Your task to perform on an android device: uninstall "Viber Messenger" Image 0: 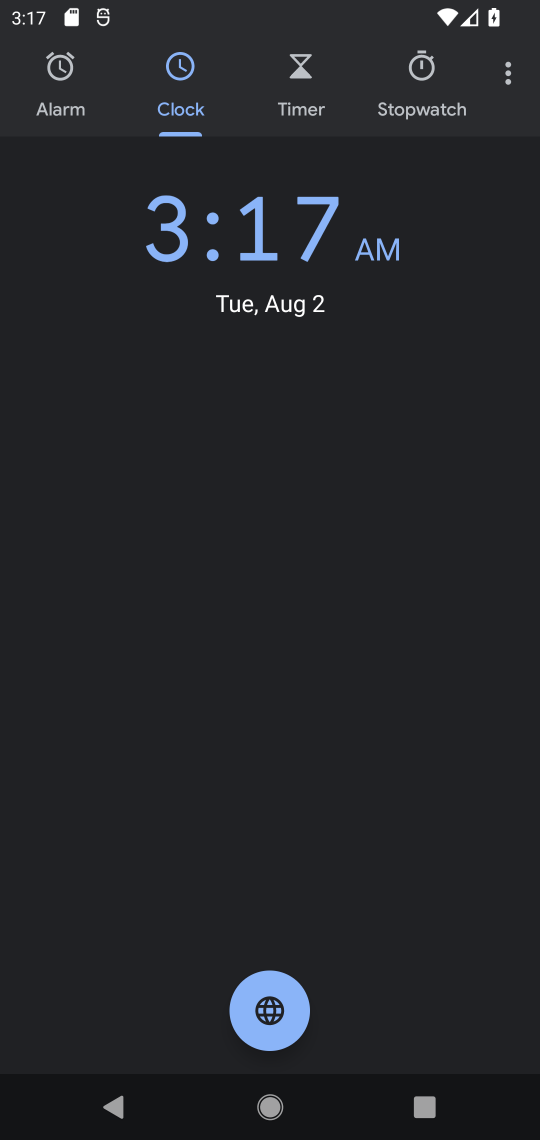
Step 0: press home button
Your task to perform on an android device: uninstall "Viber Messenger" Image 1: 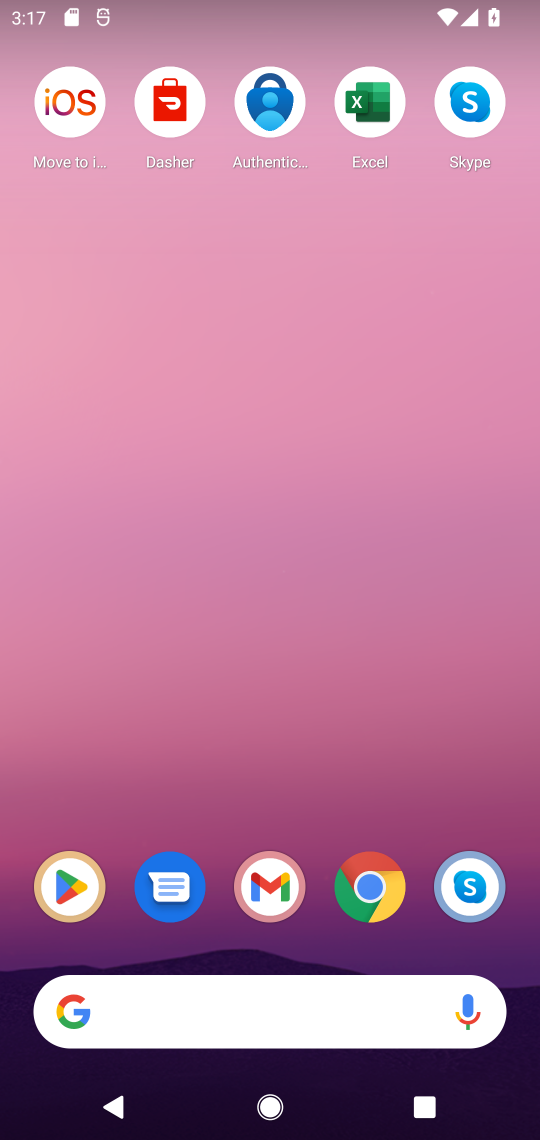
Step 1: click (42, 882)
Your task to perform on an android device: uninstall "Viber Messenger" Image 2: 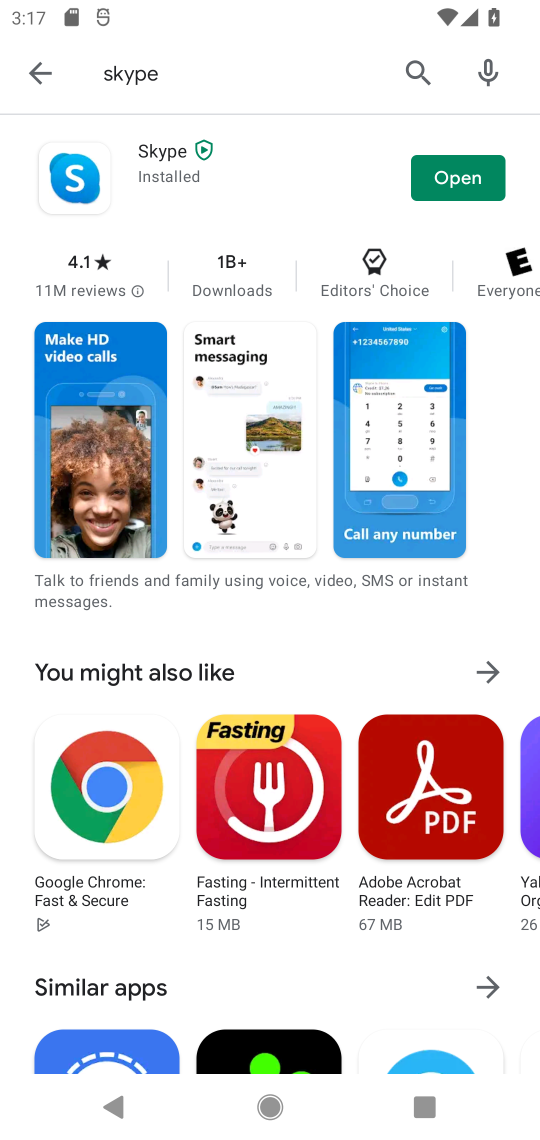
Step 2: click (22, 71)
Your task to perform on an android device: uninstall "Viber Messenger" Image 3: 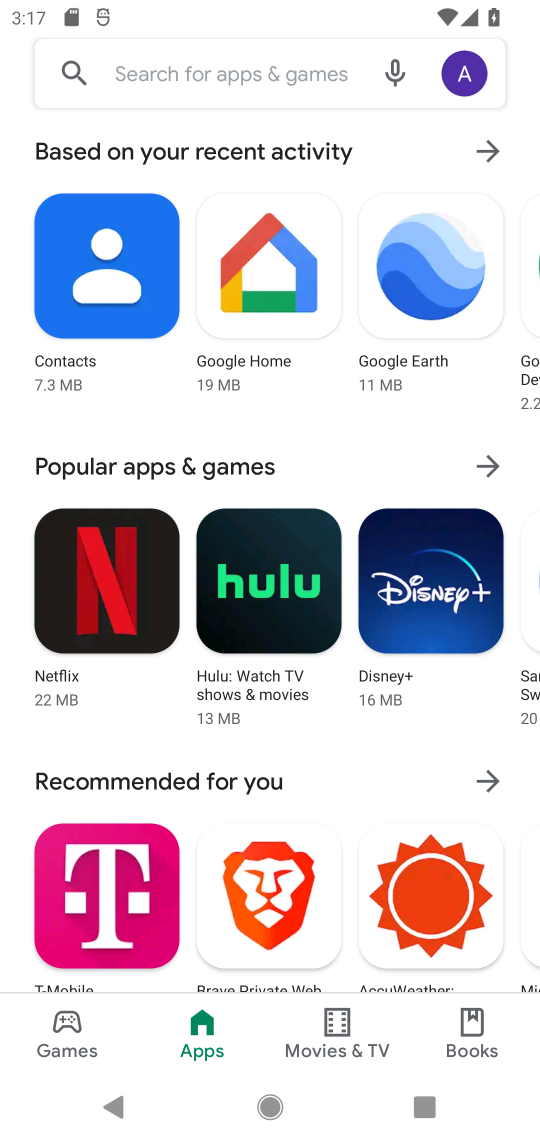
Step 3: click (208, 74)
Your task to perform on an android device: uninstall "Viber Messenger" Image 4: 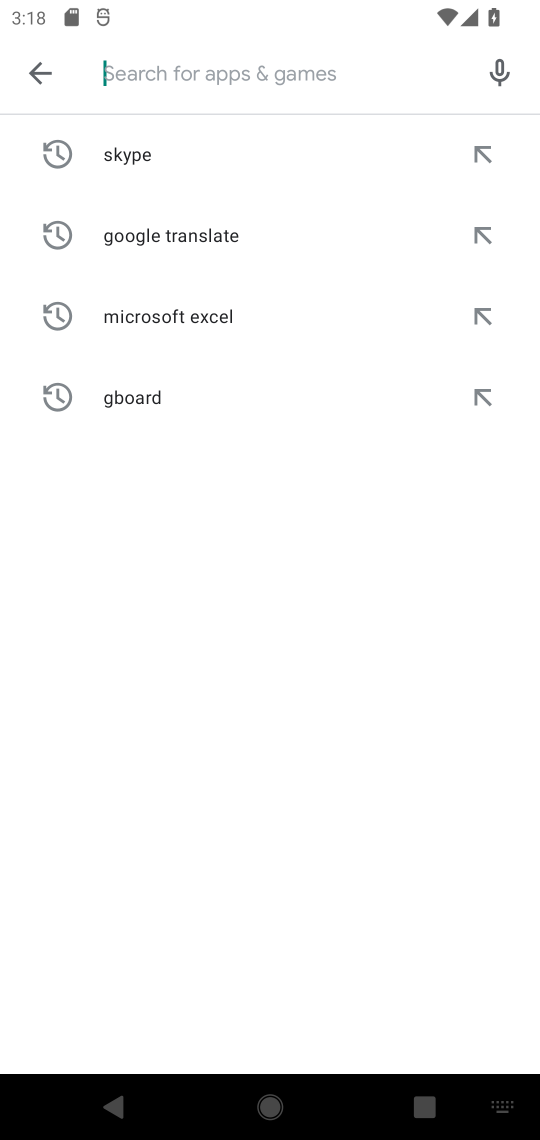
Step 4: type "Viber Messenger"
Your task to perform on an android device: uninstall "Viber Messenger" Image 5: 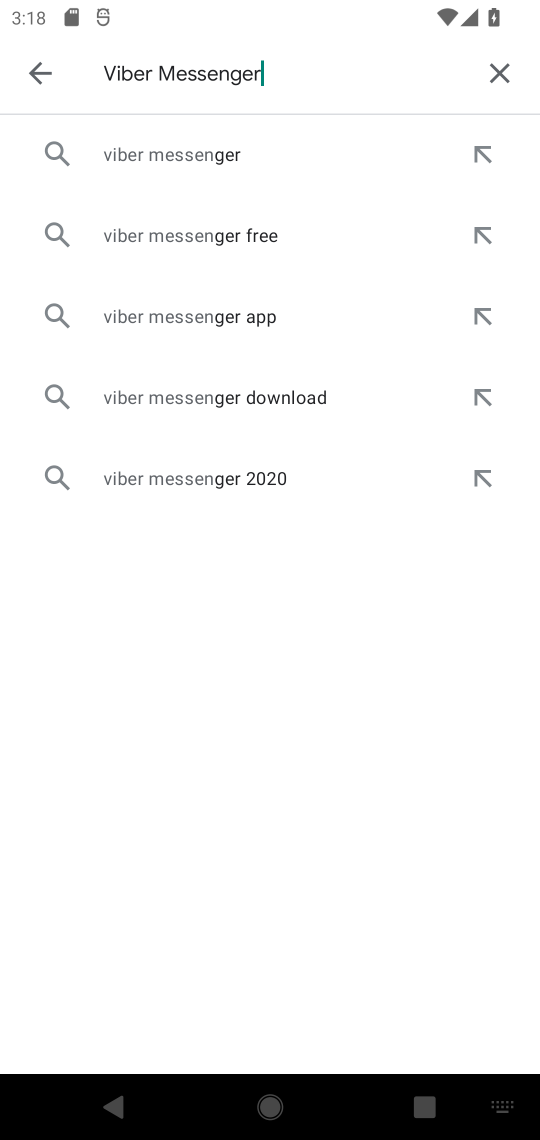
Step 5: type ""
Your task to perform on an android device: uninstall "Viber Messenger" Image 6: 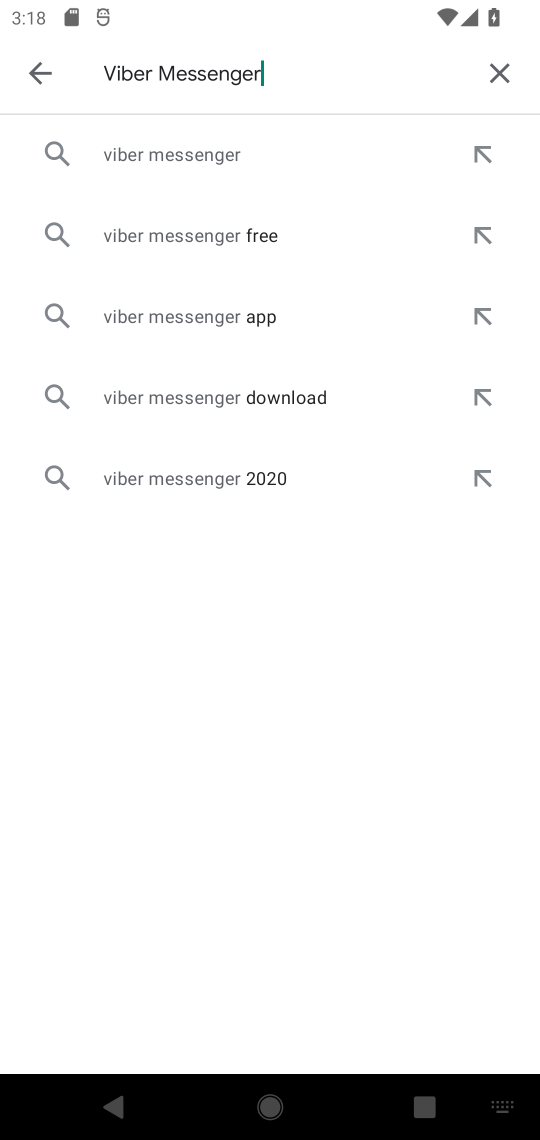
Step 6: click (194, 165)
Your task to perform on an android device: uninstall "Viber Messenger" Image 7: 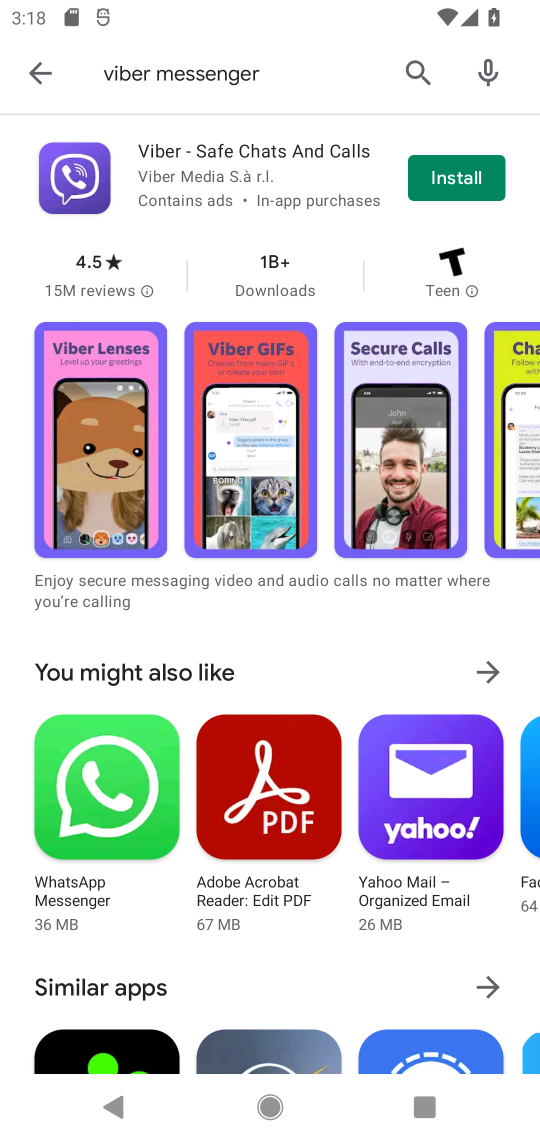
Step 7: task complete